Your task to perform on an android device: Open Chrome and go to settings Image 0: 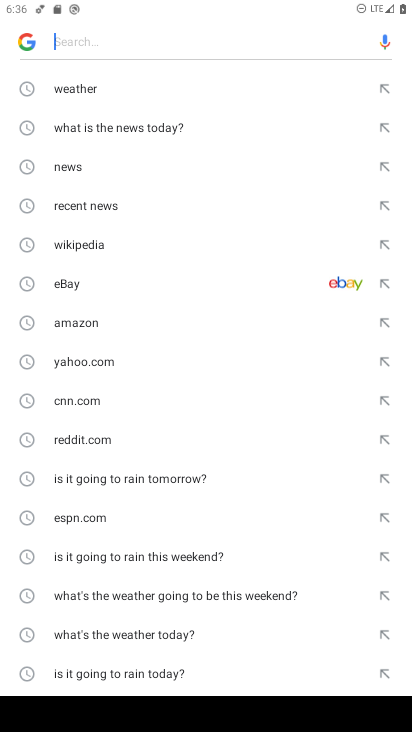
Step 0: press home button
Your task to perform on an android device: Open Chrome and go to settings Image 1: 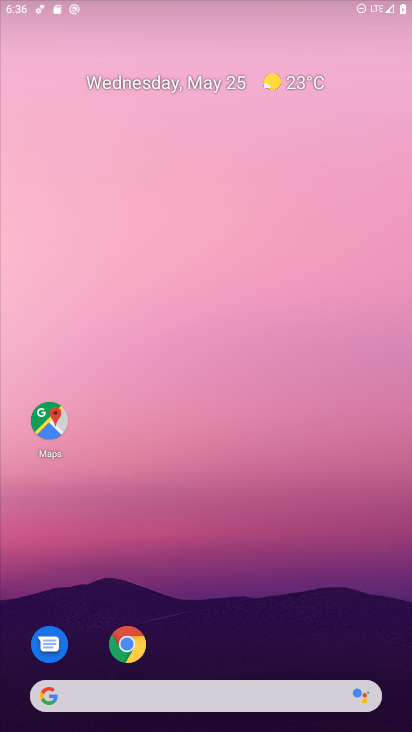
Step 1: drag from (361, 638) to (194, 7)
Your task to perform on an android device: Open Chrome and go to settings Image 2: 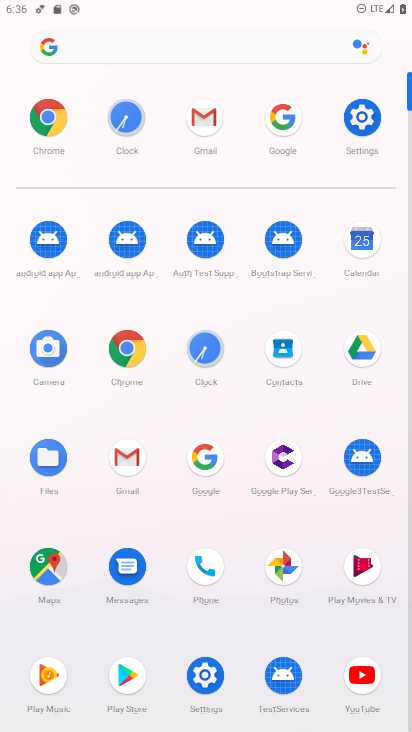
Step 2: click (32, 112)
Your task to perform on an android device: Open Chrome and go to settings Image 3: 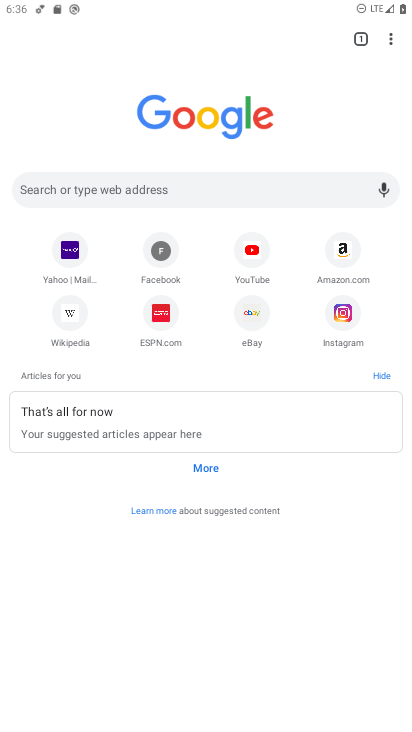
Step 3: click (393, 34)
Your task to perform on an android device: Open Chrome and go to settings Image 4: 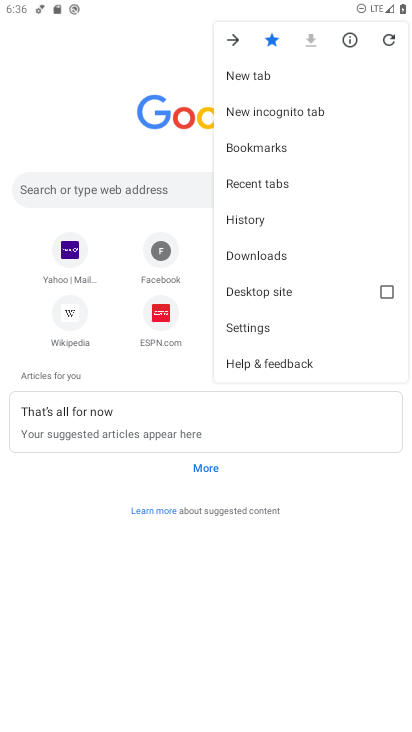
Step 4: click (264, 326)
Your task to perform on an android device: Open Chrome and go to settings Image 5: 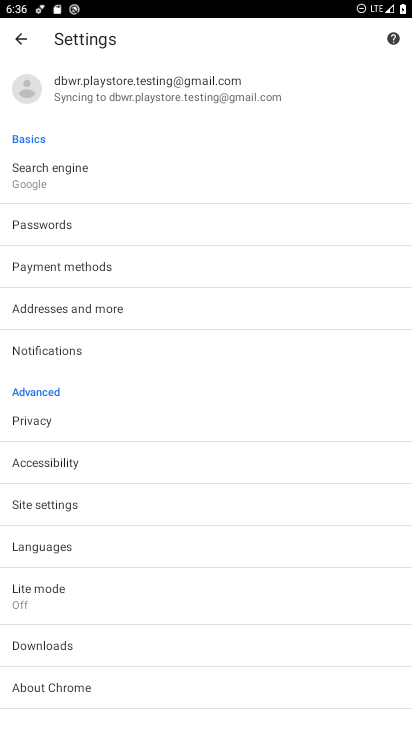
Step 5: task complete